Your task to perform on an android device: uninstall "Pandora - Music & Podcasts" Image 0: 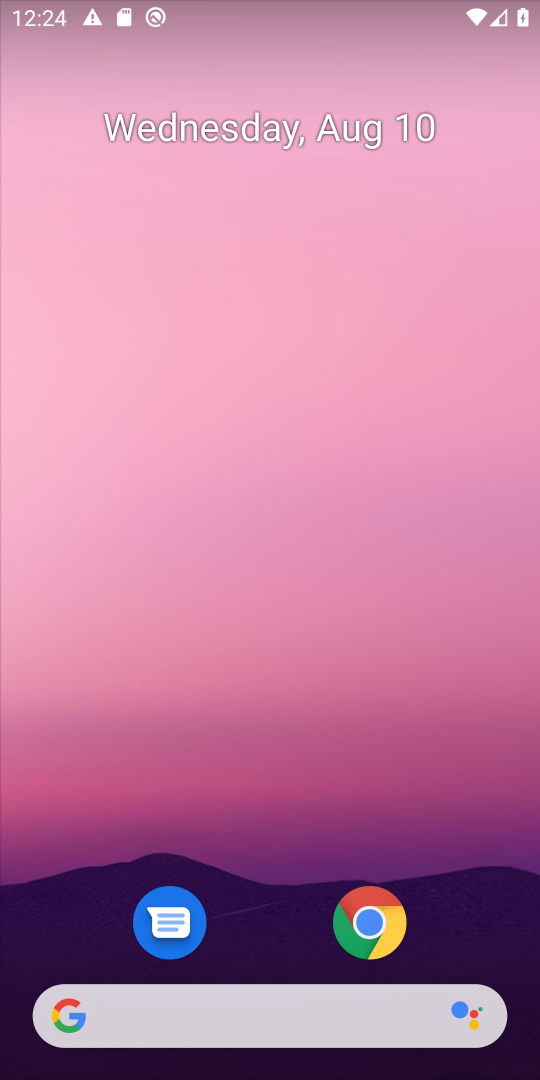
Step 0: drag from (247, 911) to (304, 139)
Your task to perform on an android device: uninstall "Pandora - Music & Podcasts" Image 1: 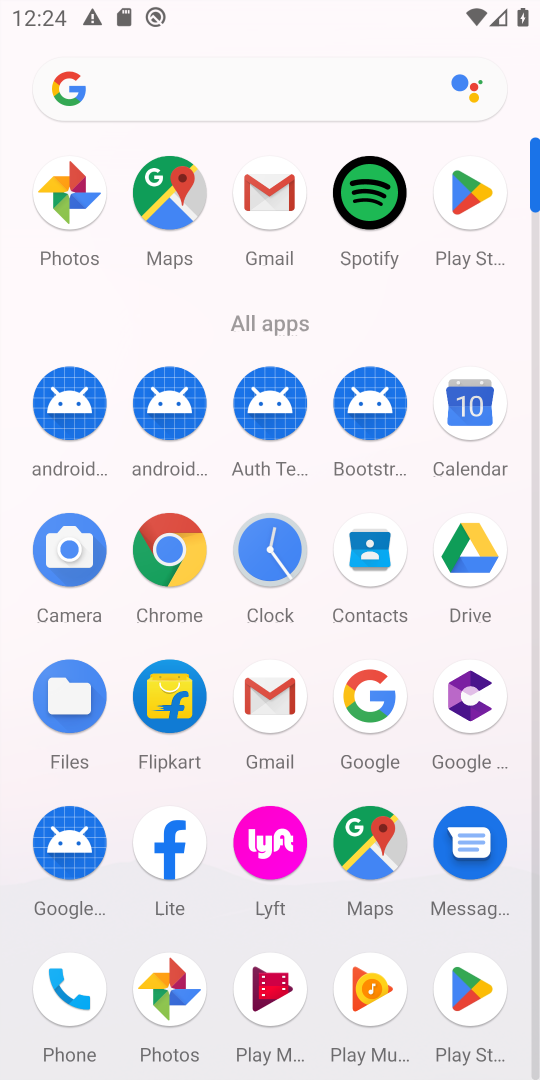
Step 1: click (481, 204)
Your task to perform on an android device: uninstall "Pandora - Music & Podcasts" Image 2: 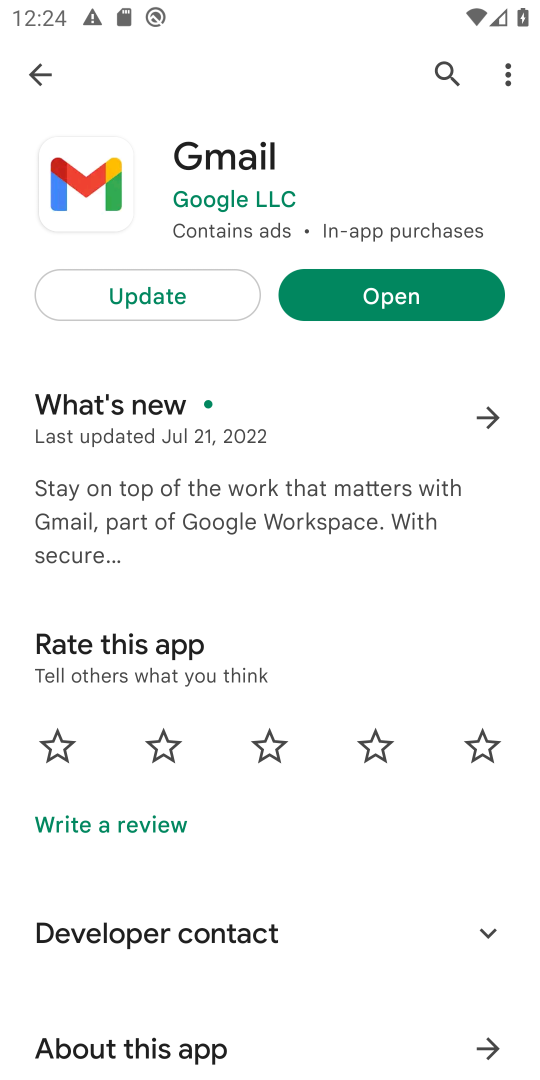
Step 2: click (37, 70)
Your task to perform on an android device: uninstall "Pandora - Music & Podcasts" Image 3: 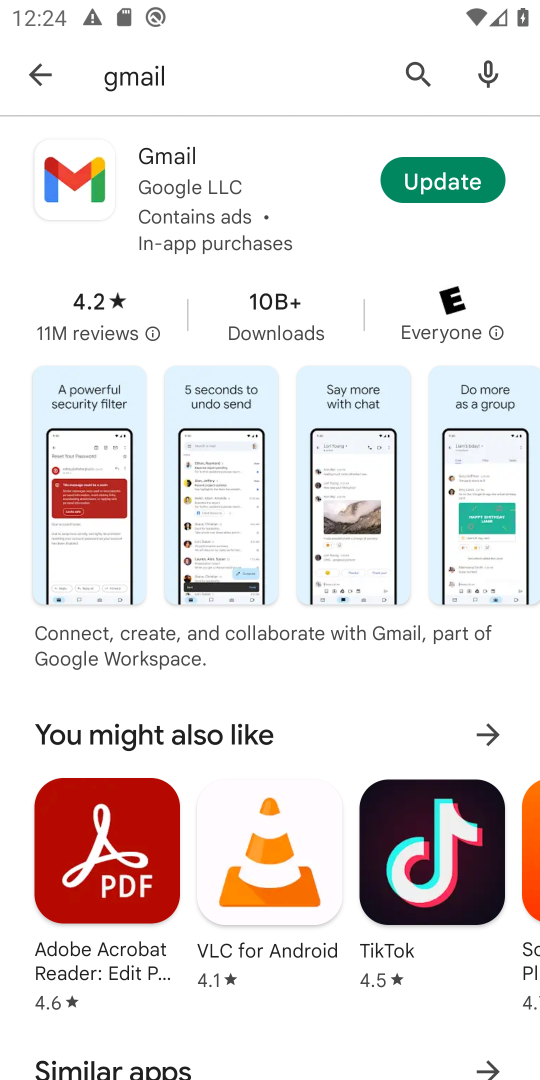
Step 3: click (38, 76)
Your task to perform on an android device: uninstall "Pandora - Music & Podcasts" Image 4: 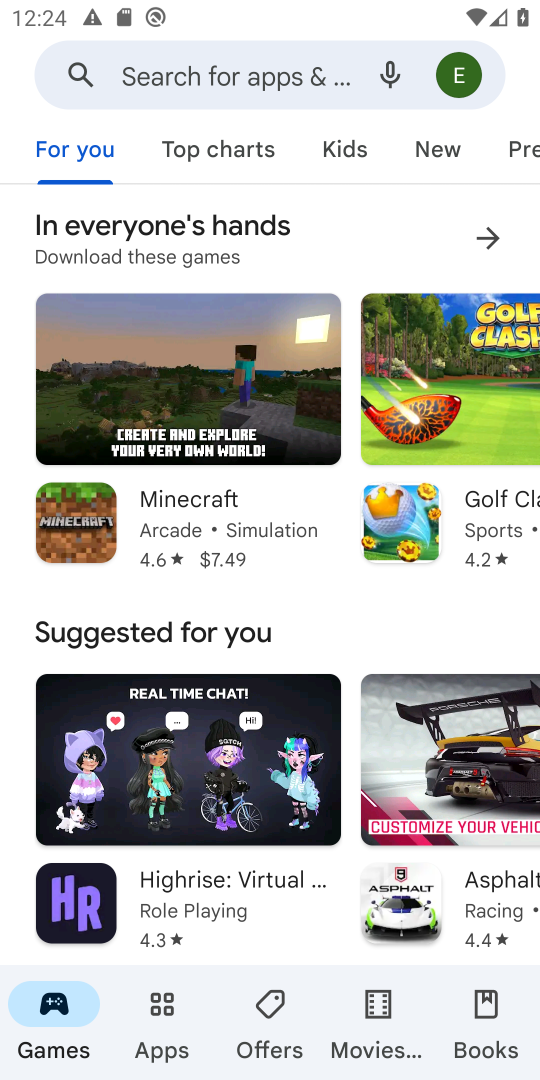
Step 4: click (147, 76)
Your task to perform on an android device: uninstall "Pandora - Music & Podcasts" Image 5: 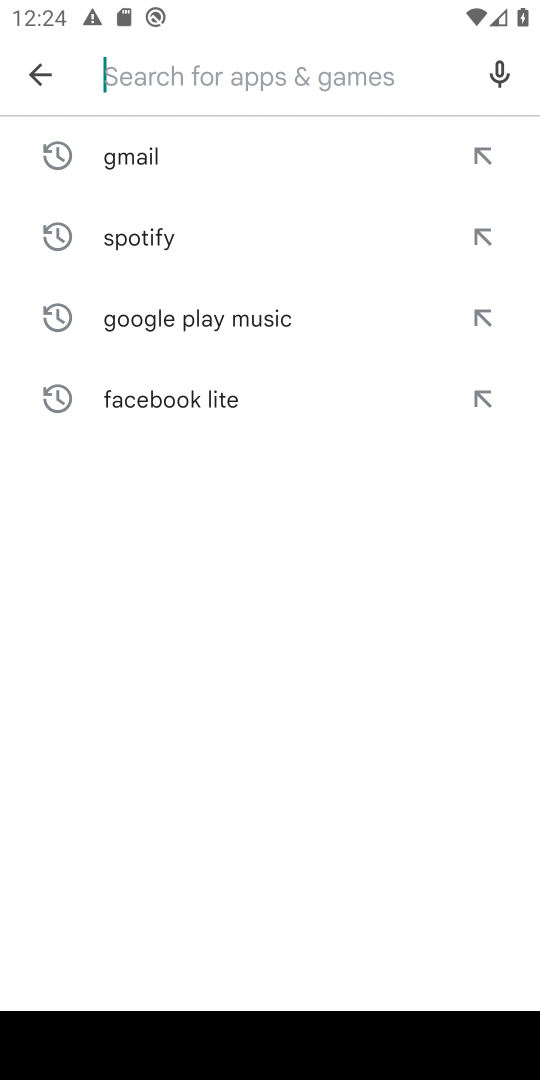
Step 5: type "Pandora"
Your task to perform on an android device: uninstall "Pandora - Music & Podcasts" Image 6: 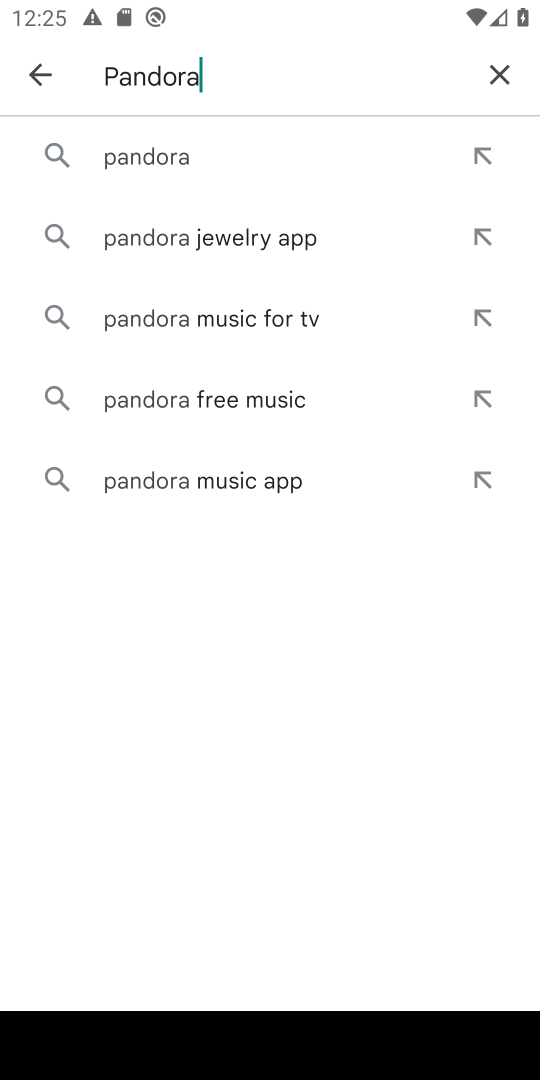
Step 6: click (143, 154)
Your task to perform on an android device: uninstall "Pandora - Music & Podcasts" Image 7: 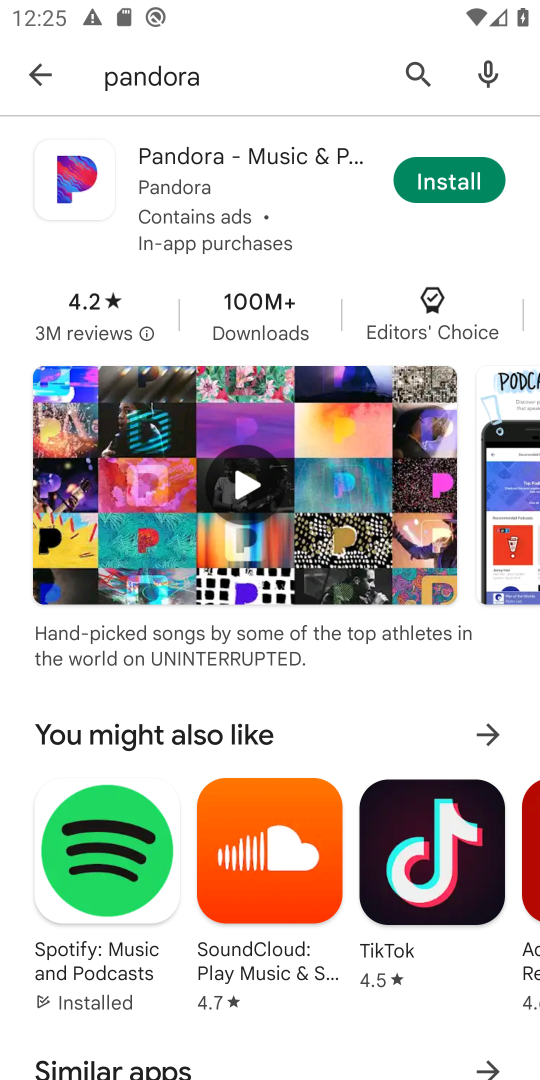
Step 7: task complete